Your task to perform on an android device: View the shopping cart on target. Add macbook pro 15 inch to the cart on target Image 0: 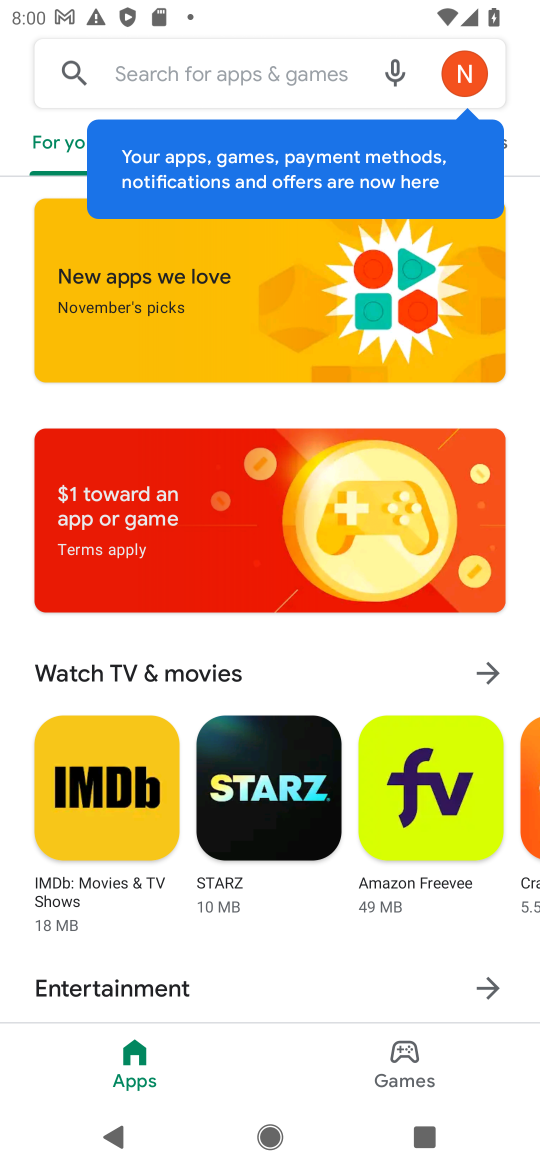
Step 0: press home button
Your task to perform on an android device: View the shopping cart on target. Add macbook pro 15 inch to the cart on target Image 1: 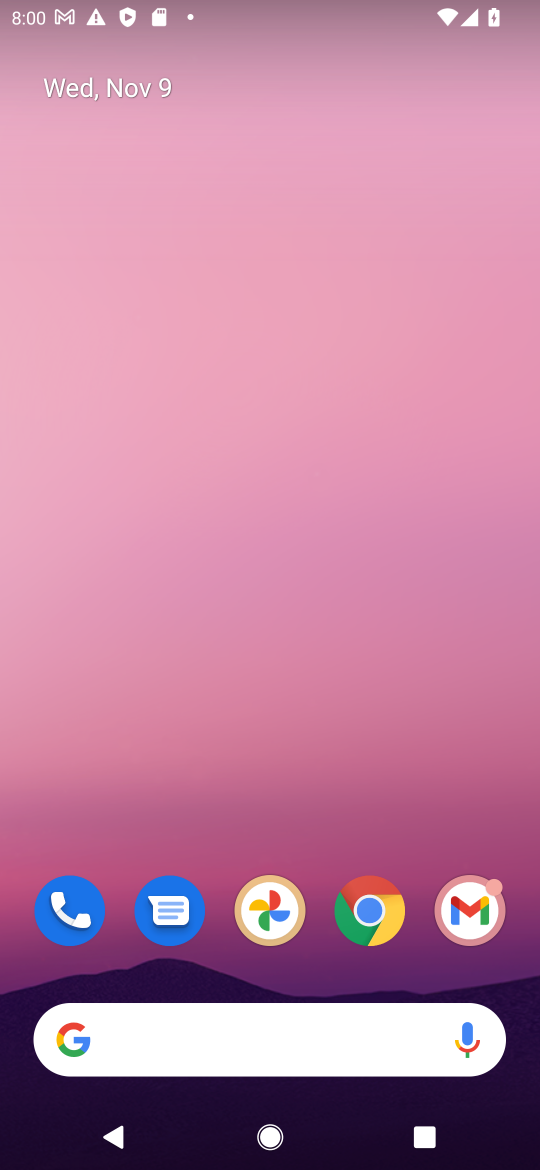
Step 1: click (374, 919)
Your task to perform on an android device: View the shopping cart on target. Add macbook pro 15 inch to the cart on target Image 2: 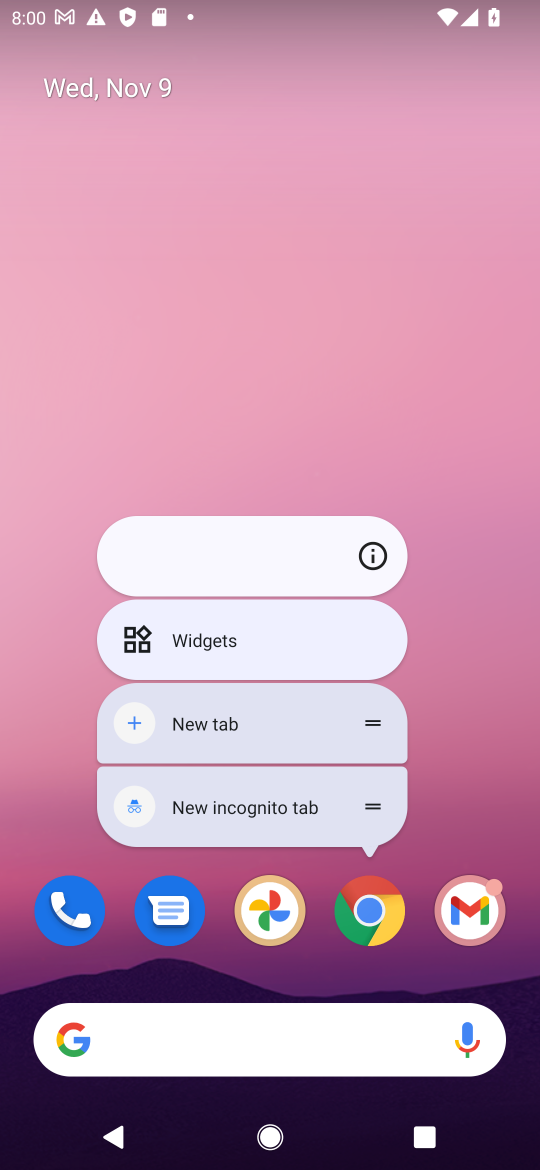
Step 2: click (374, 919)
Your task to perform on an android device: View the shopping cart on target. Add macbook pro 15 inch to the cart on target Image 3: 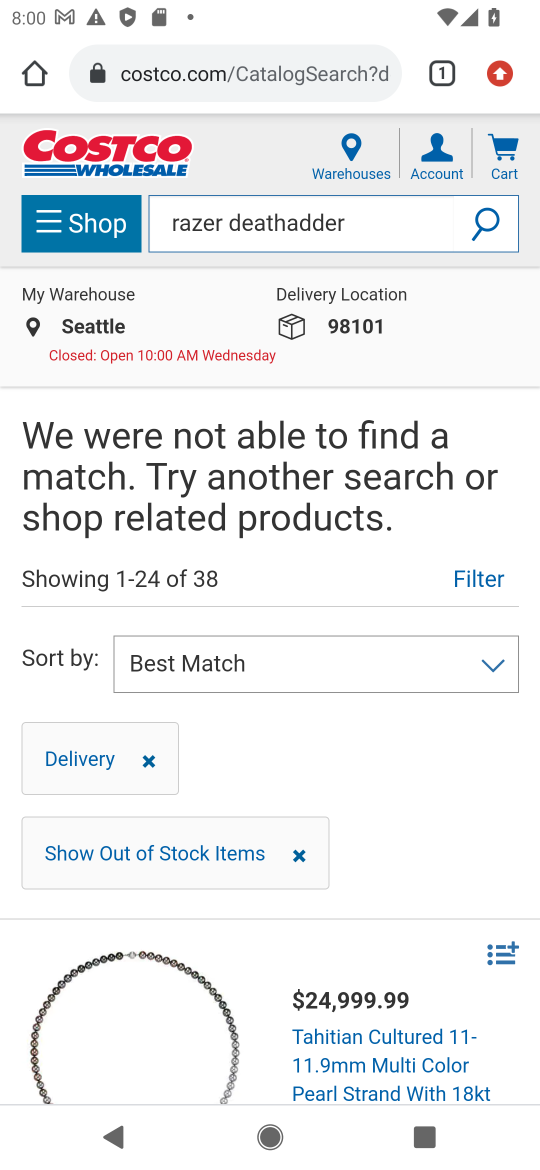
Step 3: click (231, 77)
Your task to perform on an android device: View the shopping cart on target. Add macbook pro 15 inch to the cart on target Image 4: 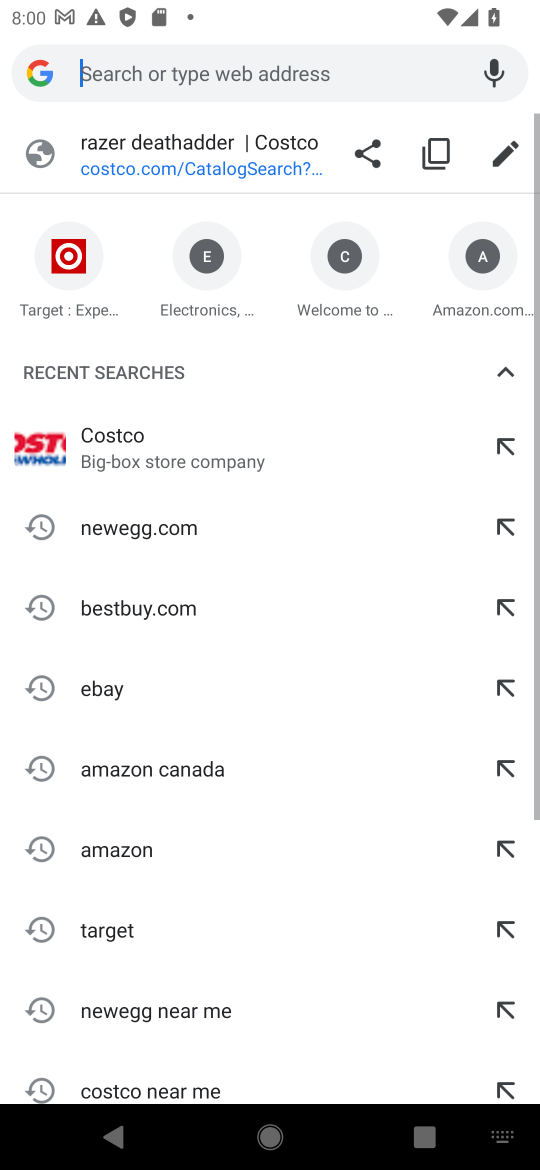
Step 4: click (82, 300)
Your task to perform on an android device: View the shopping cart on target. Add macbook pro 15 inch to the cart on target Image 5: 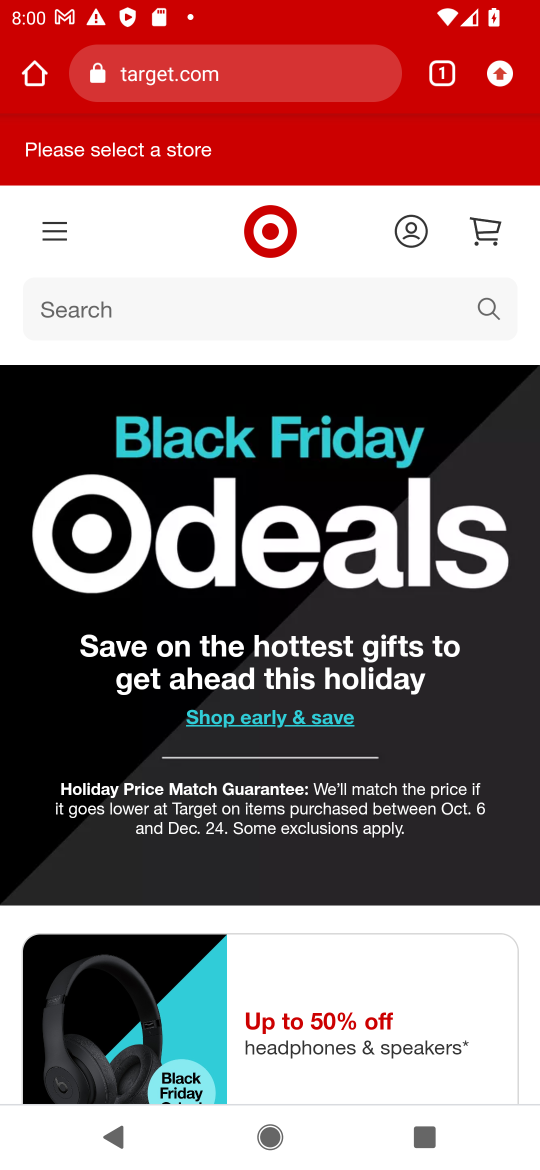
Step 5: click (483, 232)
Your task to perform on an android device: View the shopping cart on target. Add macbook pro 15 inch to the cart on target Image 6: 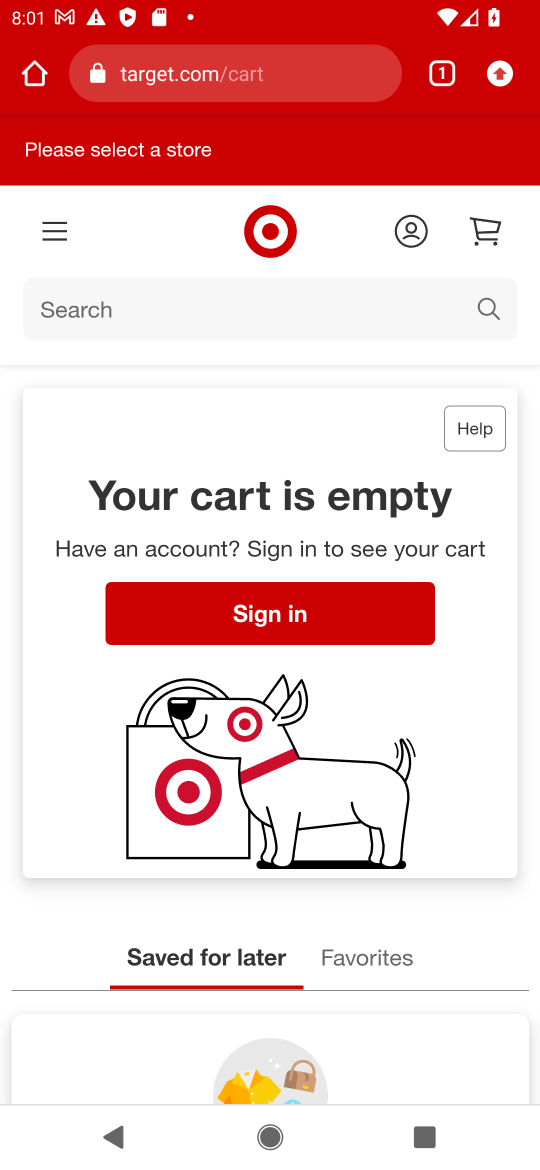
Step 6: drag from (457, 762) to (464, 533)
Your task to perform on an android device: View the shopping cart on target. Add macbook pro 15 inch to the cart on target Image 7: 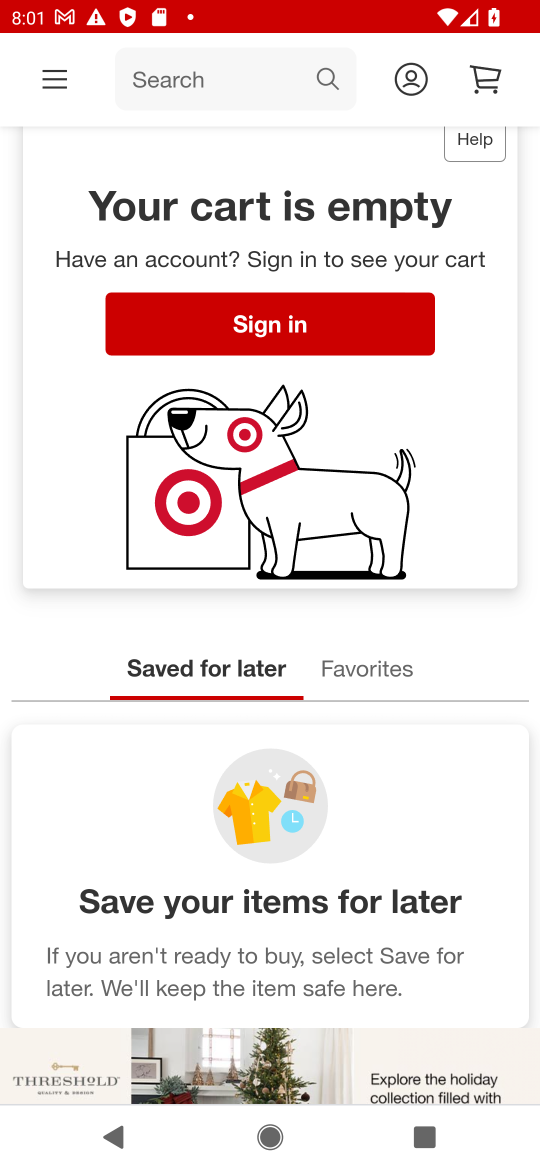
Step 7: drag from (357, 416) to (376, 795)
Your task to perform on an android device: View the shopping cart on target. Add macbook pro 15 inch to the cart on target Image 8: 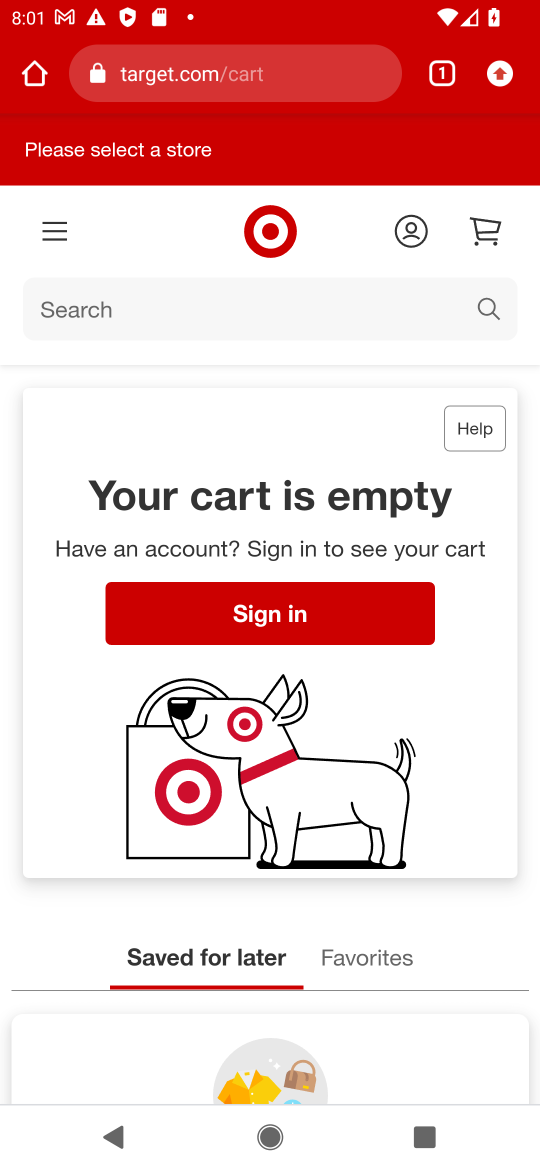
Step 8: click (482, 315)
Your task to perform on an android device: View the shopping cart on target. Add macbook pro 15 inch to the cart on target Image 9: 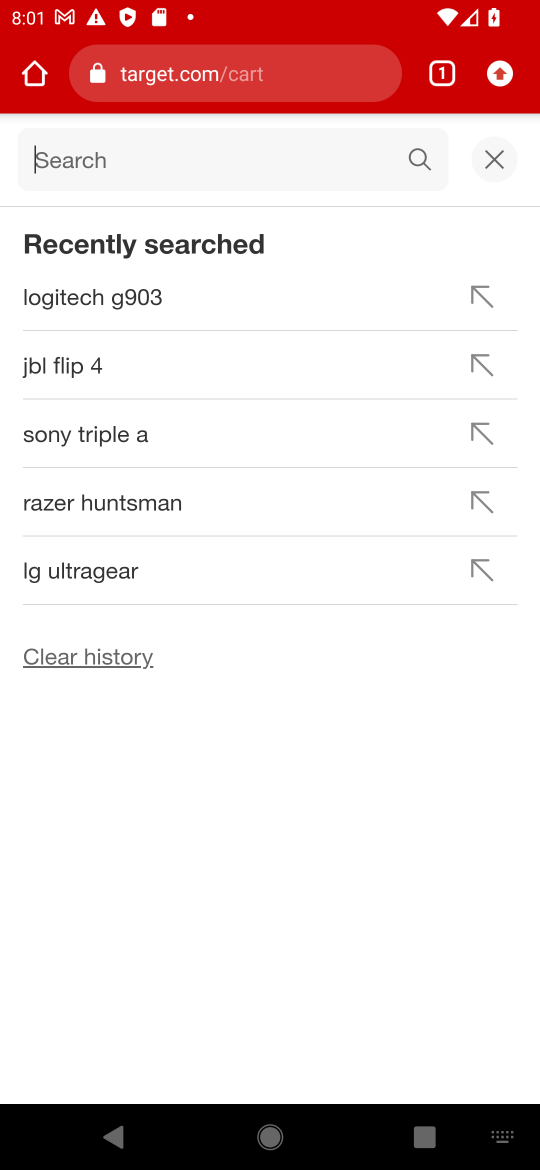
Step 9: type "macbook pro 15 inch"
Your task to perform on an android device: View the shopping cart on target. Add macbook pro 15 inch to the cart on target Image 10: 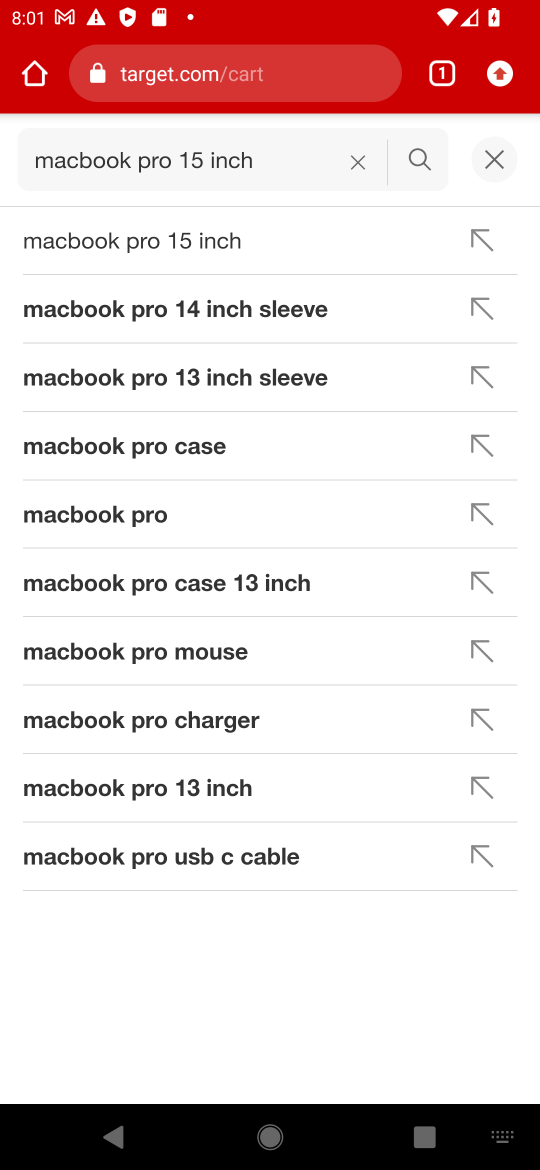
Step 10: click (168, 238)
Your task to perform on an android device: View the shopping cart on target. Add macbook pro 15 inch to the cart on target Image 11: 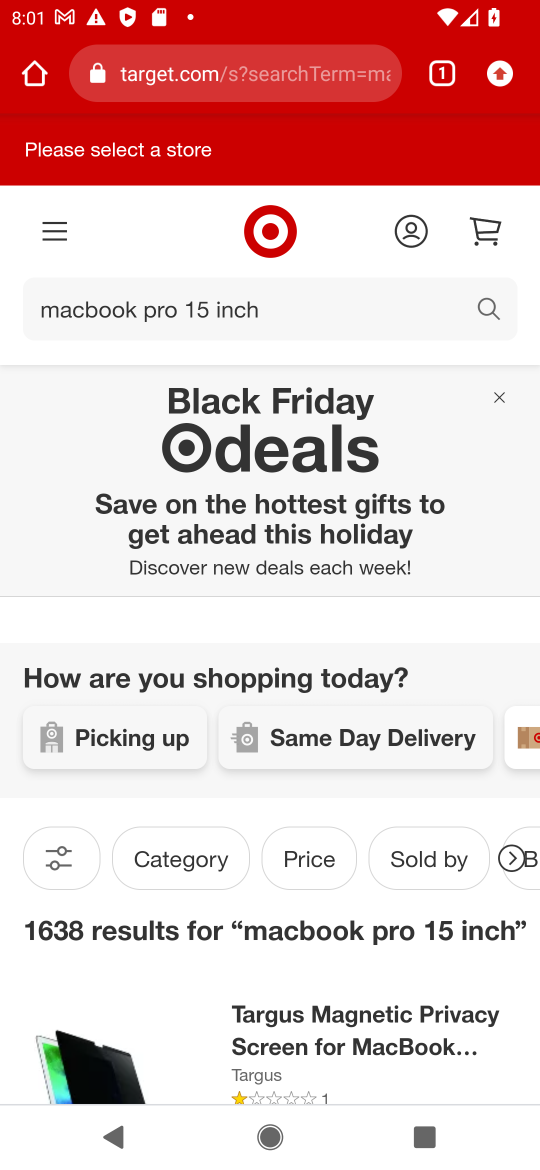
Step 11: task complete